Your task to perform on an android device: find photos in the google photos app Image 0: 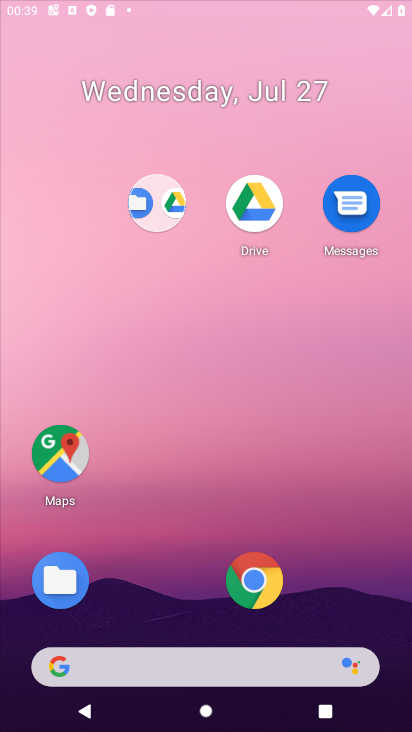
Step 0: click (204, 684)
Your task to perform on an android device: find photos in the google photos app Image 1: 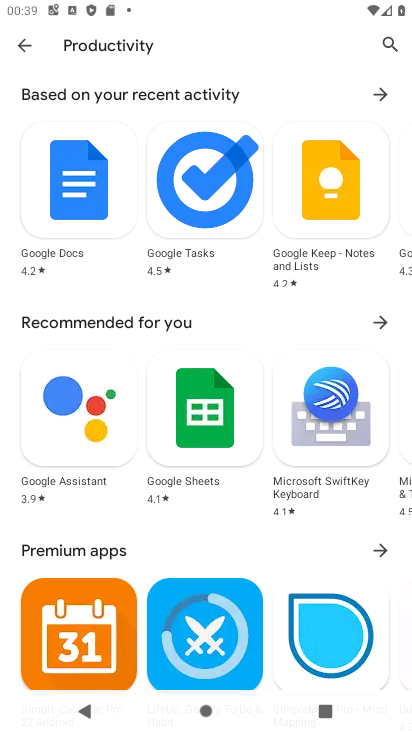
Step 1: press home button
Your task to perform on an android device: find photos in the google photos app Image 2: 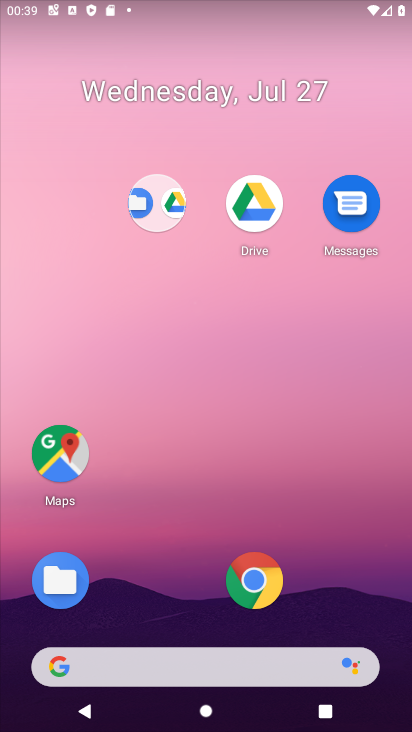
Step 2: drag from (154, 566) to (347, 100)
Your task to perform on an android device: find photos in the google photos app Image 3: 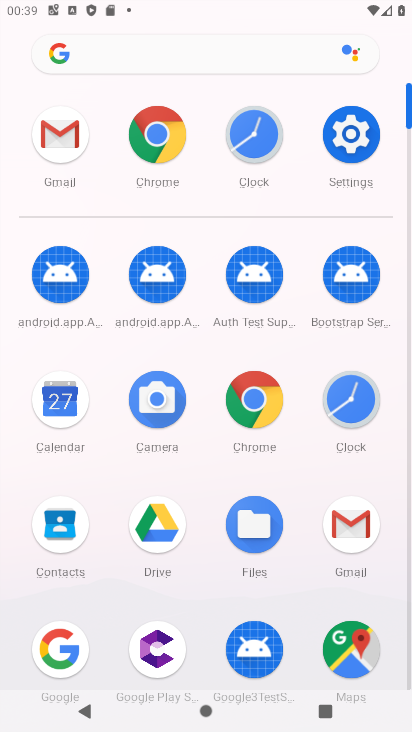
Step 3: drag from (201, 600) to (303, 175)
Your task to perform on an android device: find photos in the google photos app Image 4: 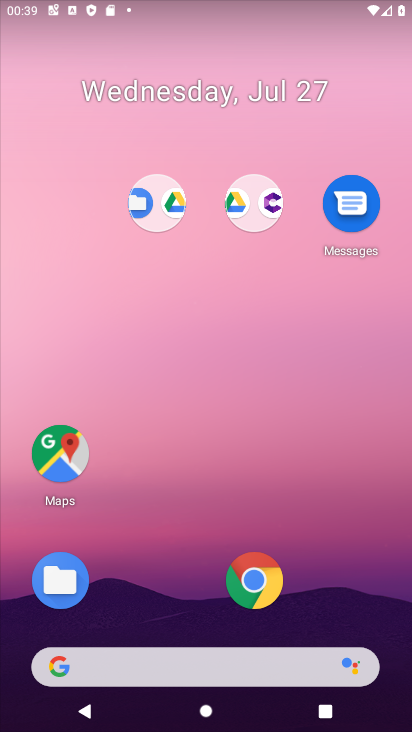
Step 4: drag from (141, 615) to (256, 38)
Your task to perform on an android device: find photos in the google photos app Image 5: 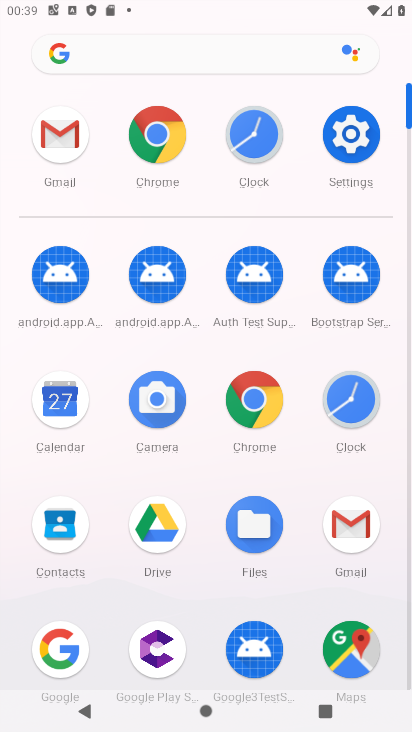
Step 5: drag from (214, 645) to (255, 150)
Your task to perform on an android device: find photos in the google photos app Image 6: 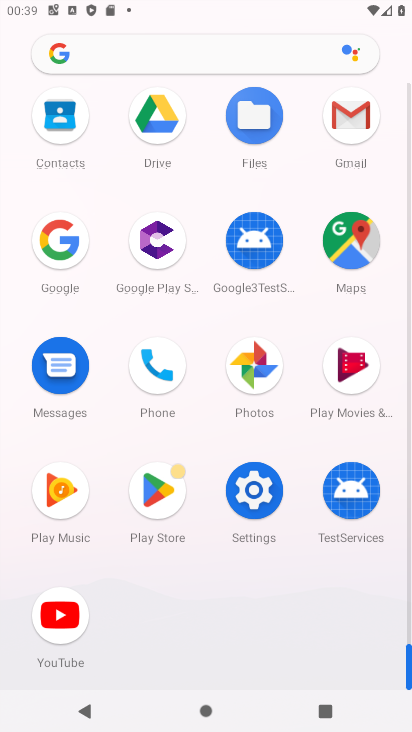
Step 6: click (250, 370)
Your task to perform on an android device: find photos in the google photos app Image 7: 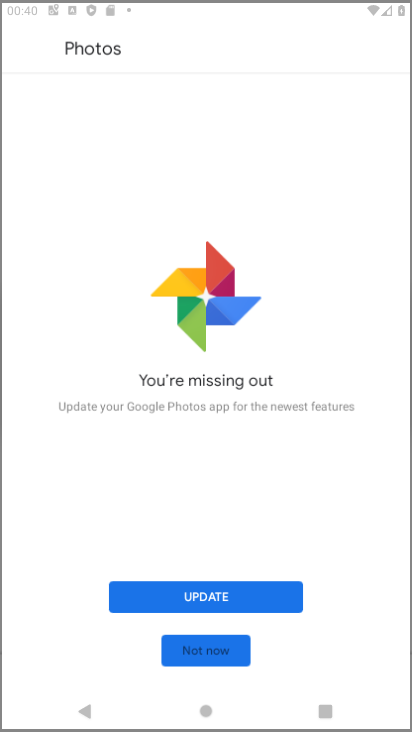
Step 7: click (296, 404)
Your task to perform on an android device: find photos in the google photos app Image 8: 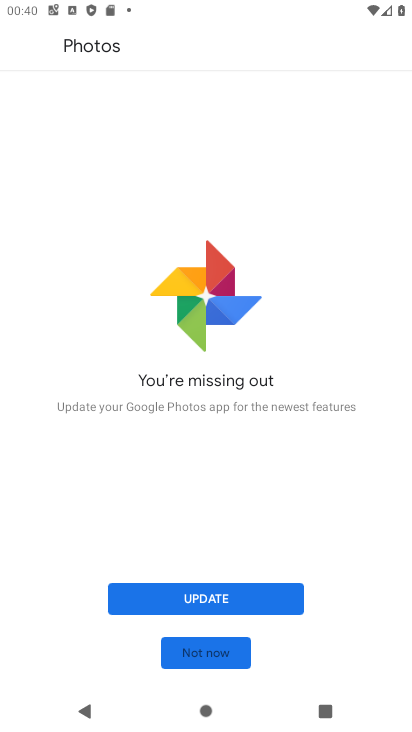
Step 8: click (193, 656)
Your task to perform on an android device: find photos in the google photos app Image 9: 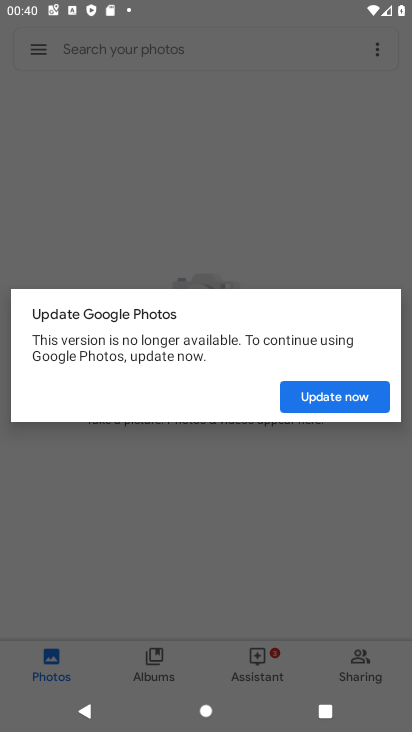
Step 9: click (344, 392)
Your task to perform on an android device: find photos in the google photos app Image 10: 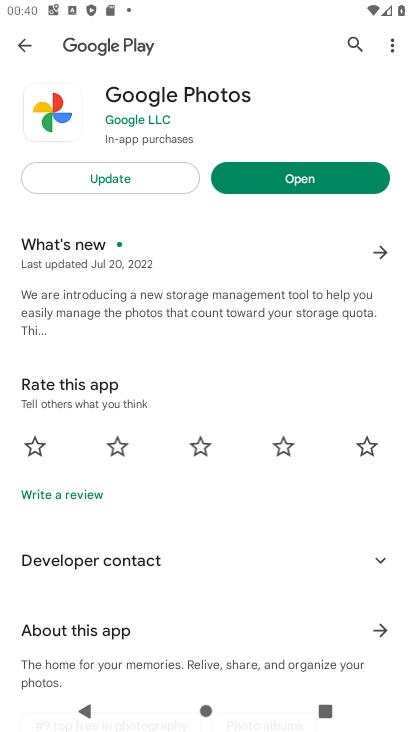
Step 10: click (275, 157)
Your task to perform on an android device: find photos in the google photos app Image 11: 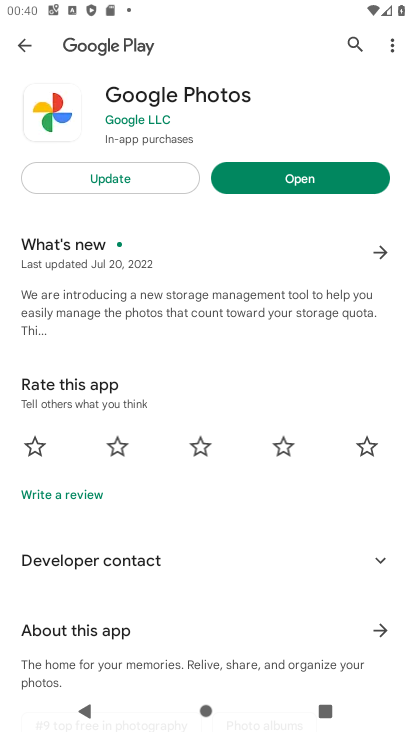
Step 11: click (250, 172)
Your task to perform on an android device: find photos in the google photos app Image 12: 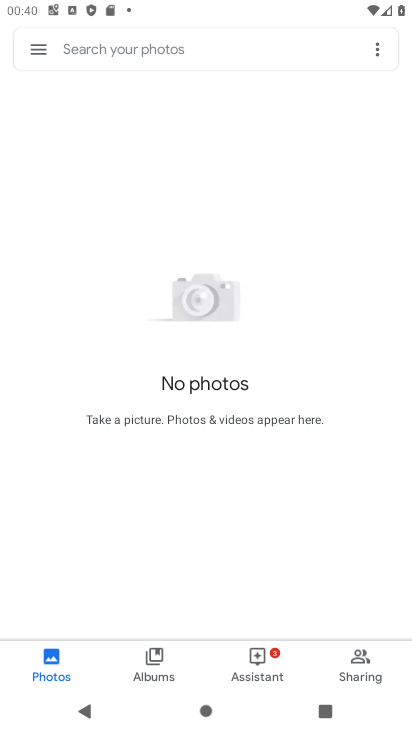
Step 12: task complete